Your task to perform on an android device: set default search engine in the chrome app Image 0: 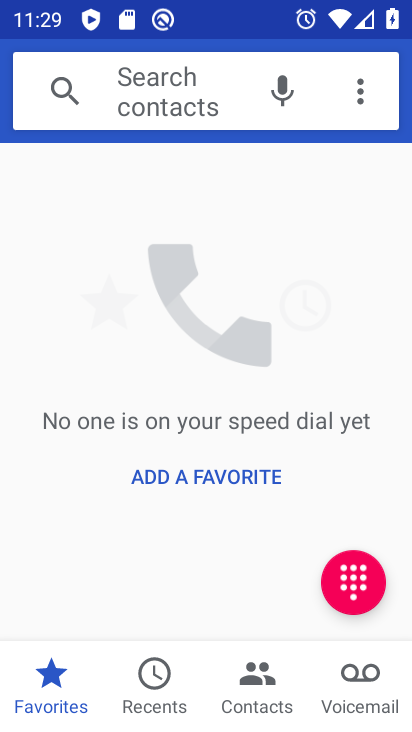
Step 0: press home button
Your task to perform on an android device: set default search engine in the chrome app Image 1: 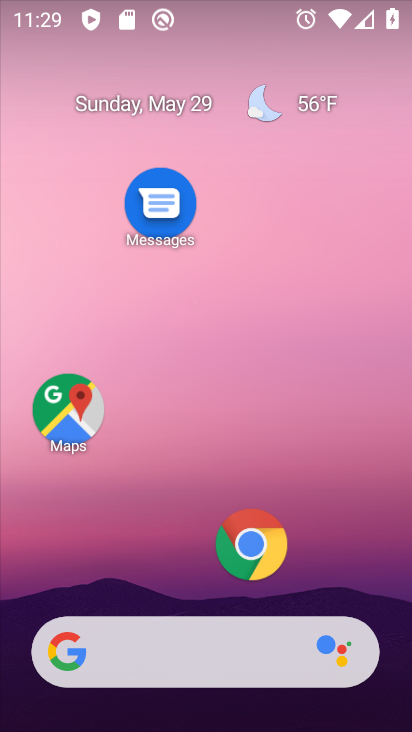
Step 1: click (256, 538)
Your task to perform on an android device: set default search engine in the chrome app Image 2: 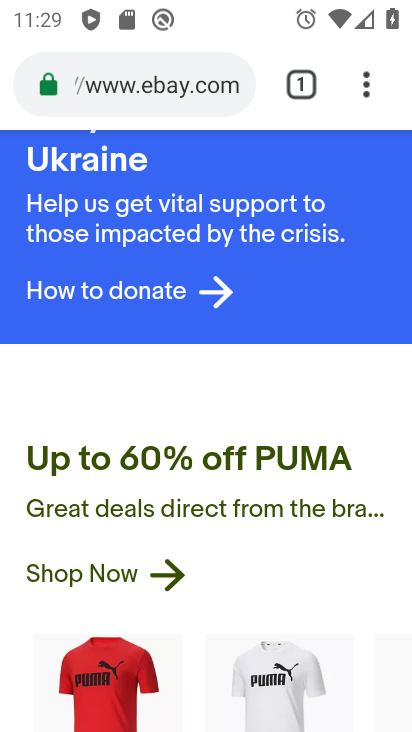
Step 2: click (363, 84)
Your task to perform on an android device: set default search engine in the chrome app Image 3: 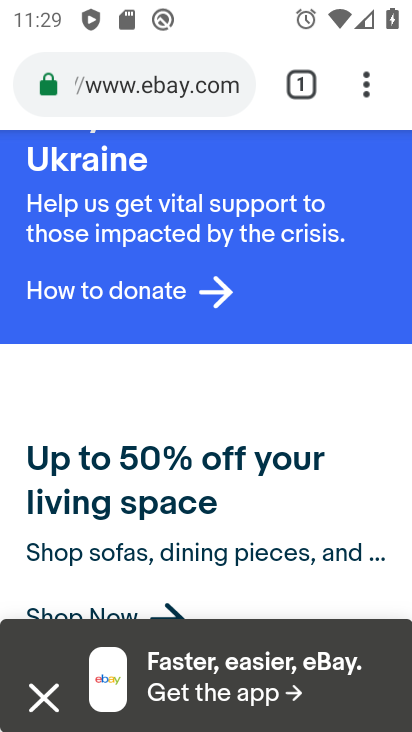
Step 3: click (366, 81)
Your task to perform on an android device: set default search engine in the chrome app Image 4: 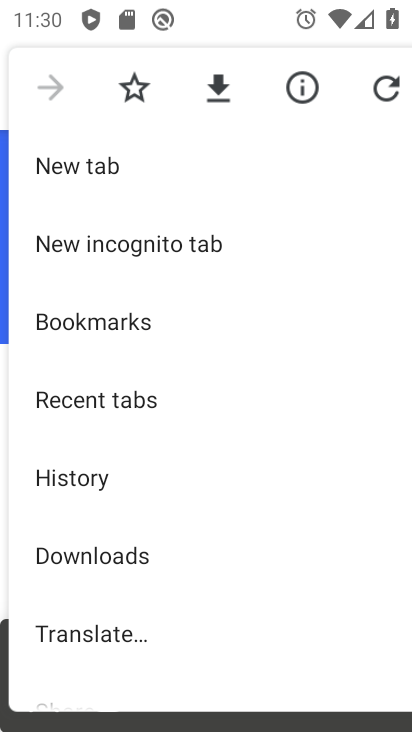
Step 4: drag from (202, 591) to (228, 49)
Your task to perform on an android device: set default search engine in the chrome app Image 5: 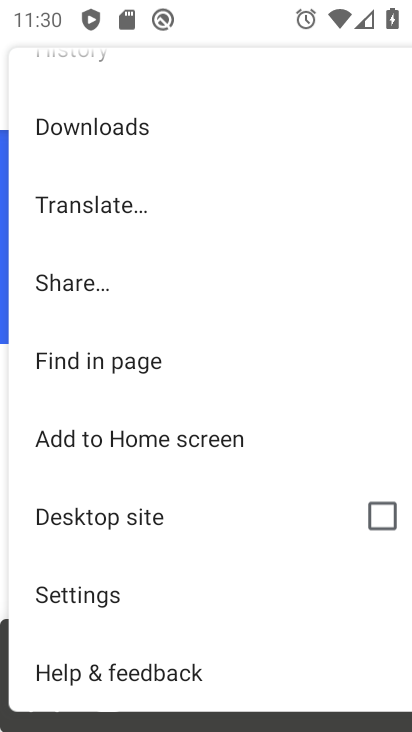
Step 5: click (129, 597)
Your task to perform on an android device: set default search engine in the chrome app Image 6: 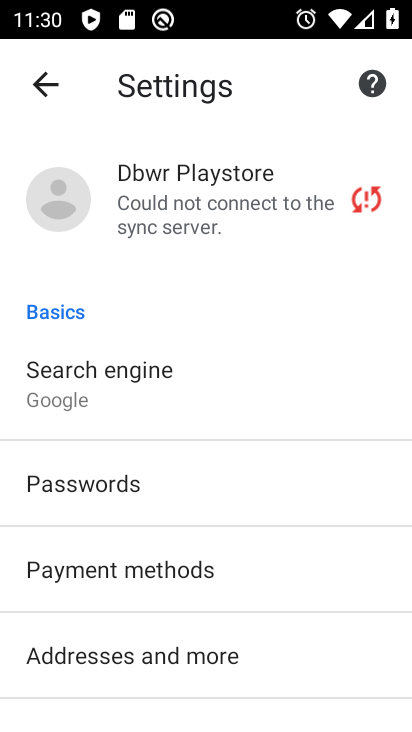
Step 6: click (130, 381)
Your task to perform on an android device: set default search engine in the chrome app Image 7: 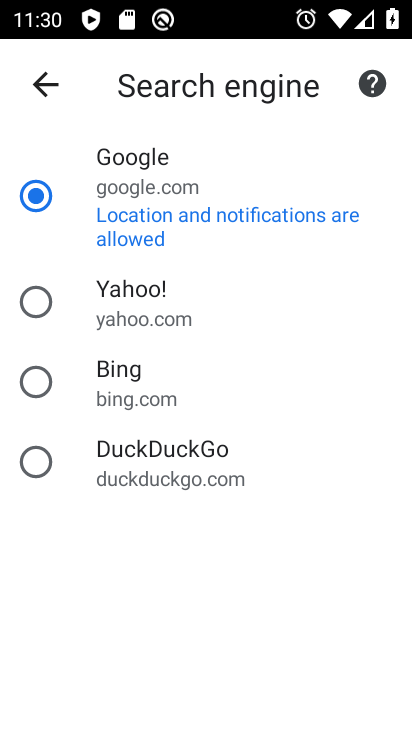
Step 7: click (46, 292)
Your task to perform on an android device: set default search engine in the chrome app Image 8: 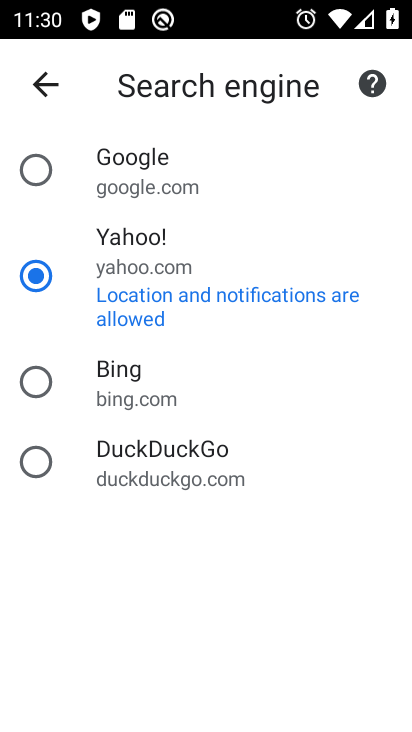
Step 8: task complete